Your task to perform on an android device: Check the weather Image 0: 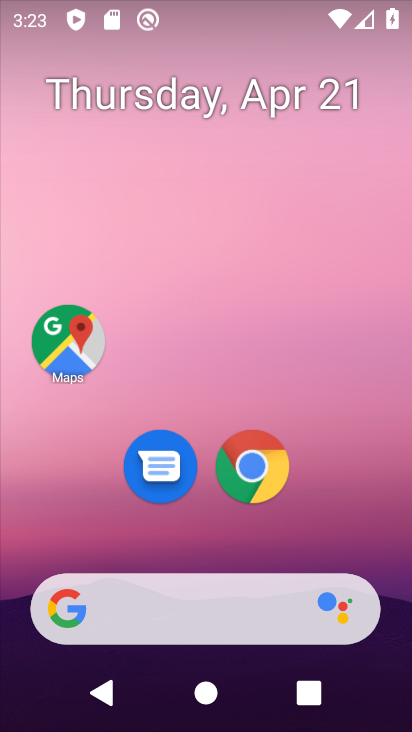
Step 0: drag from (222, 510) to (242, 177)
Your task to perform on an android device: Check the weather Image 1: 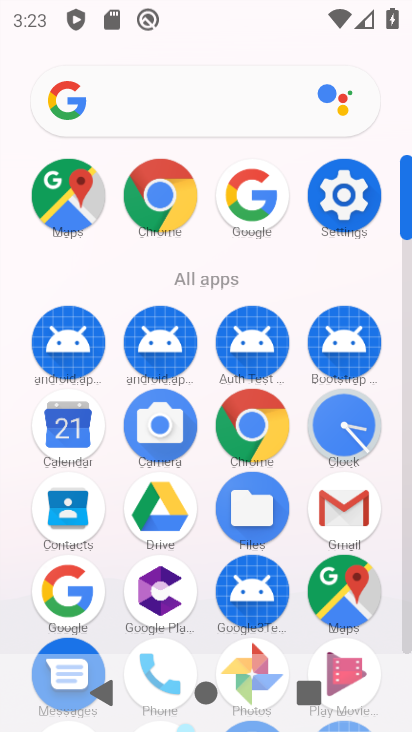
Step 1: click (250, 204)
Your task to perform on an android device: Check the weather Image 2: 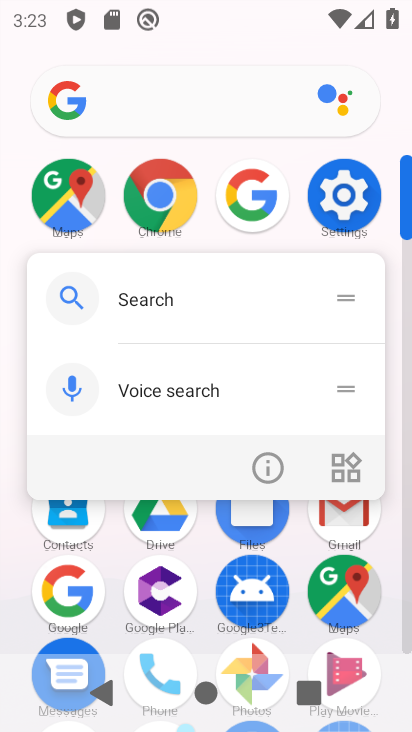
Step 2: click (250, 204)
Your task to perform on an android device: Check the weather Image 3: 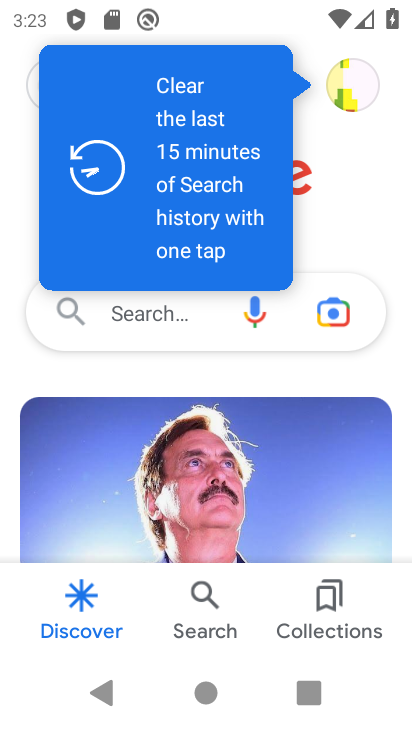
Step 3: click (354, 235)
Your task to perform on an android device: Check the weather Image 4: 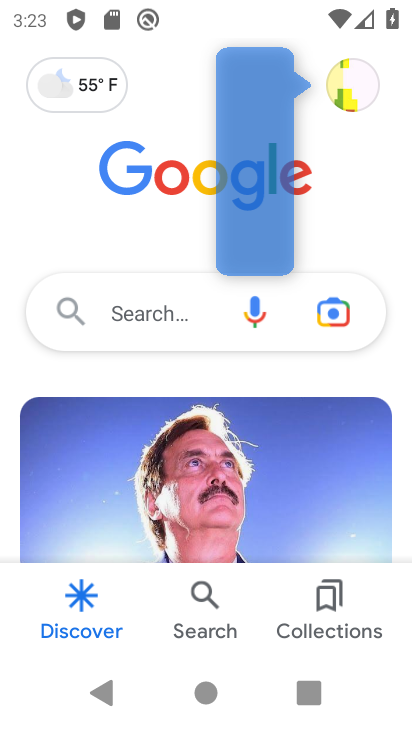
Step 4: click (81, 84)
Your task to perform on an android device: Check the weather Image 5: 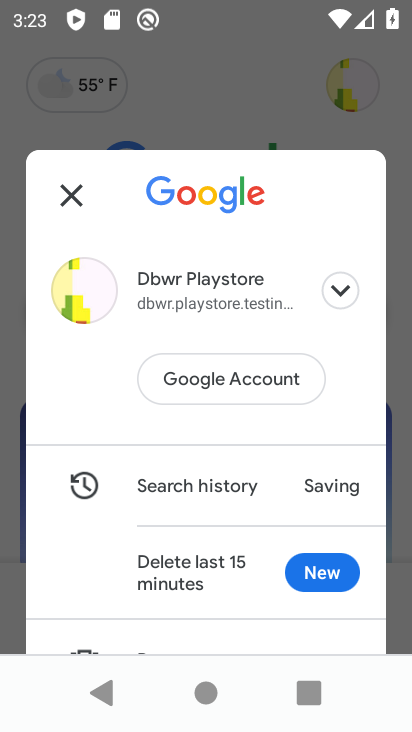
Step 5: click (90, 89)
Your task to perform on an android device: Check the weather Image 6: 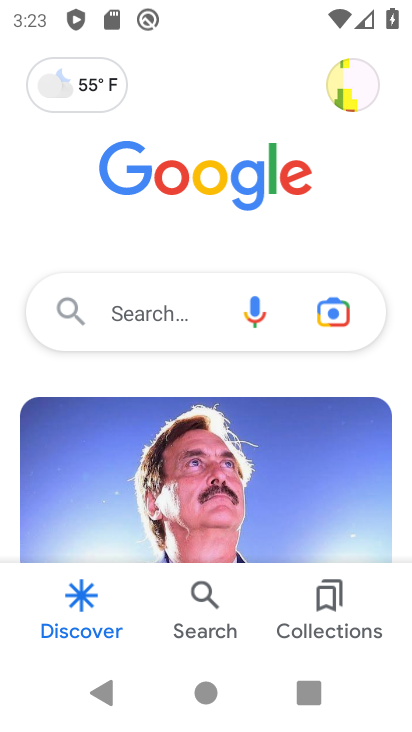
Step 6: click (75, 190)
Your task to perform on an android device: Check the weather Image 7: 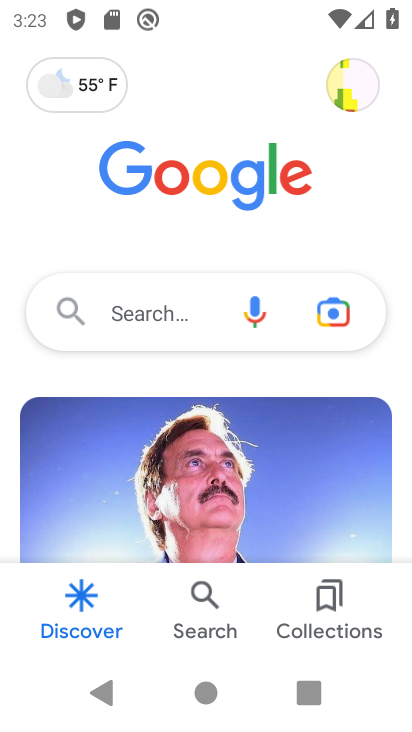
Step 7: click (73, 103)
Your task to perform on an android device: Check the weather Image 8: 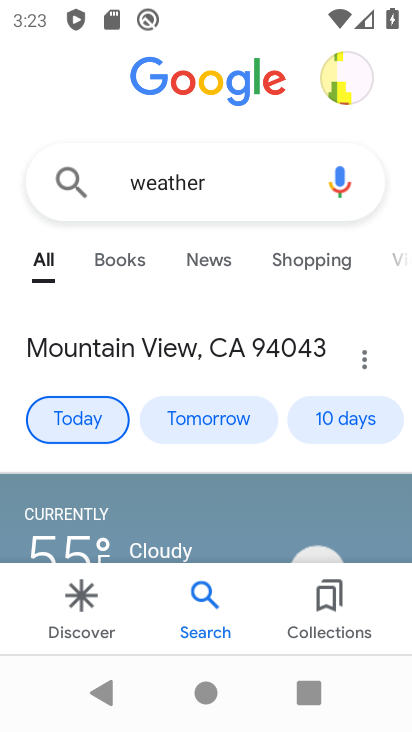
Step 8: drag from (248, 501) to (252, 221)
Your task to perform on an android device: Check the weather Image 9: 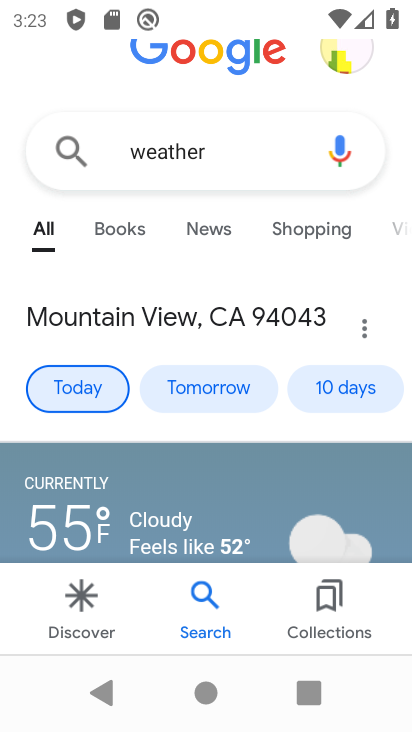
Step 9: drag from (246, 491) to (243, 246)
Your task to perform on an android device: Check the weather Image 10: 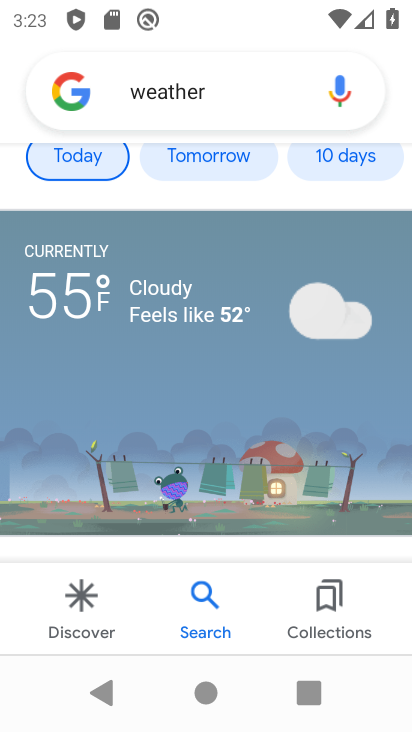
Step 10: click (242, 445)
Your task to perform on an android device: Check the weather Image 11: 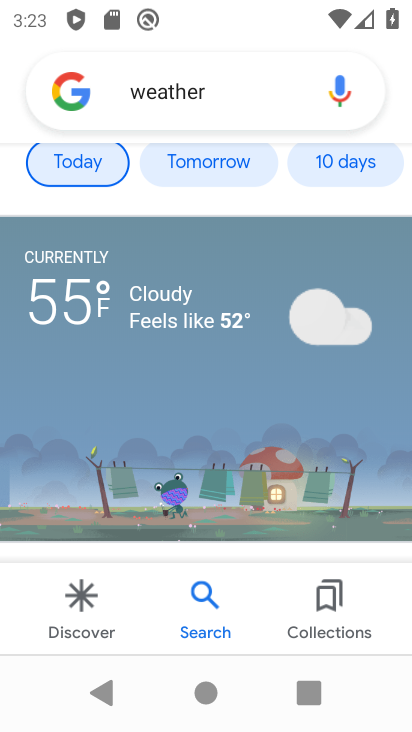
Step 11: task complete